Your task to perform on an android device: What's on my calendar tomorrow? Image 0: 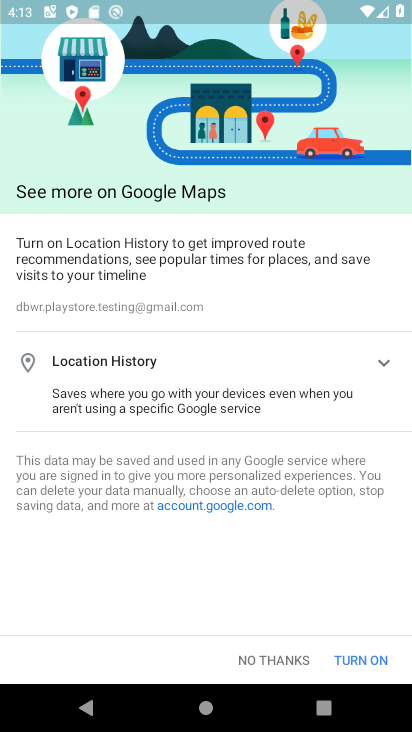
Step 0: press back button
Your task to perform on an android device: What's on my calendar tomorrow? Image 1: 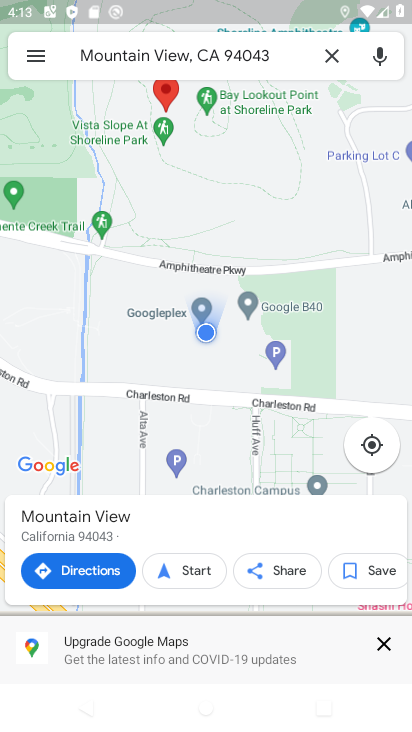
Step 1: press home button
Your task to perform on an android device: What's on my calendar tomorrow? Image 2: 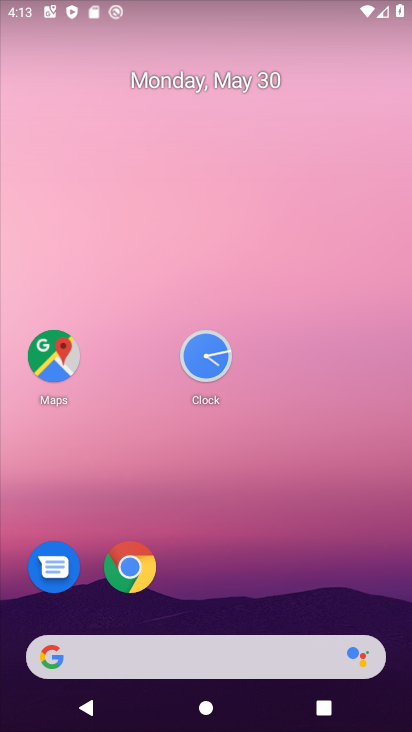
Step 2: drag from (283, 619) to (161, 58)
Your task to perform on an android device: What's on my calendar tomorrow? Image 3: 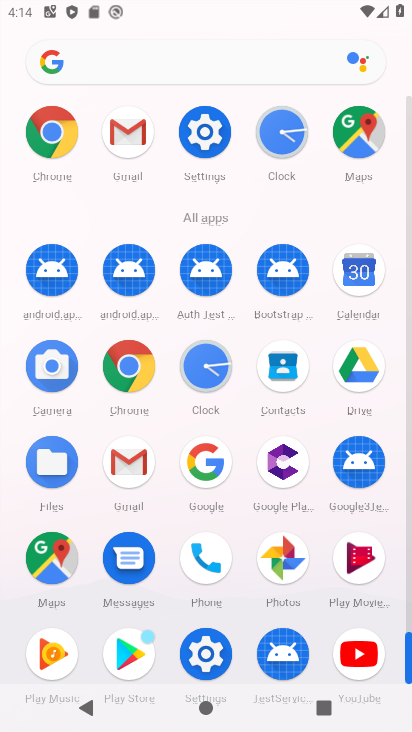
Step 3: click (358, 279)
Your task to perform on an android device: What's on my calendar tomorrow? Image 4: 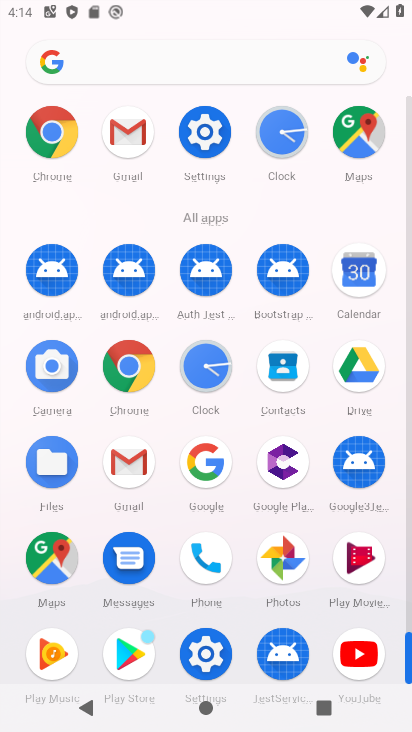
Step 4: click (357, 280)
Your task to perform on an android device: What's on my calendar tomorrow? Image 5: 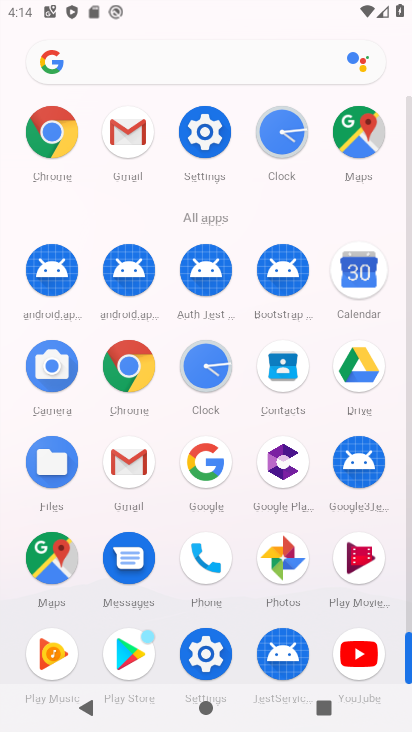
Step 5: click (357, 280)
Your task to perform on an android device: What's on my calendar tomorrow? Image 6: 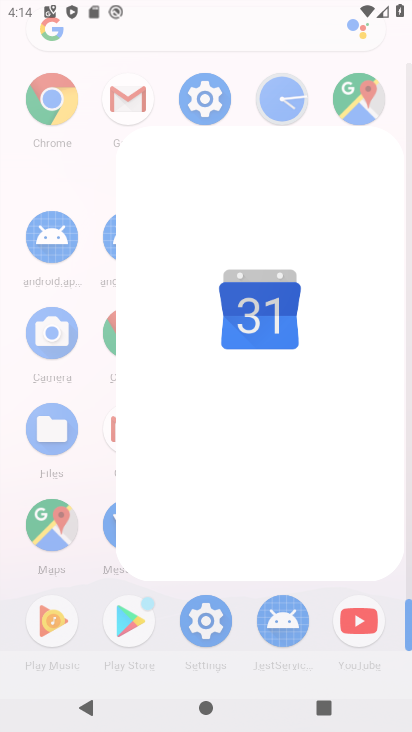
Step 6: click (358, 280)
Your task to perform on an android device: What's on my calendar tomorrow? Image 7: 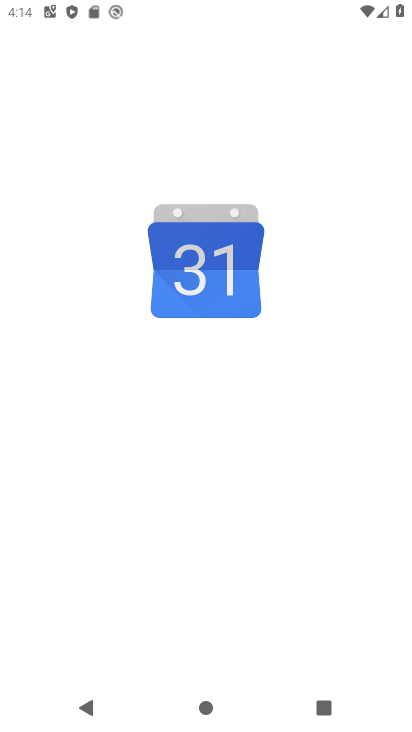
Step 7: click (361, 281)
Your task to perform on an android device: What's on my calendar tomorrow? Image 8: 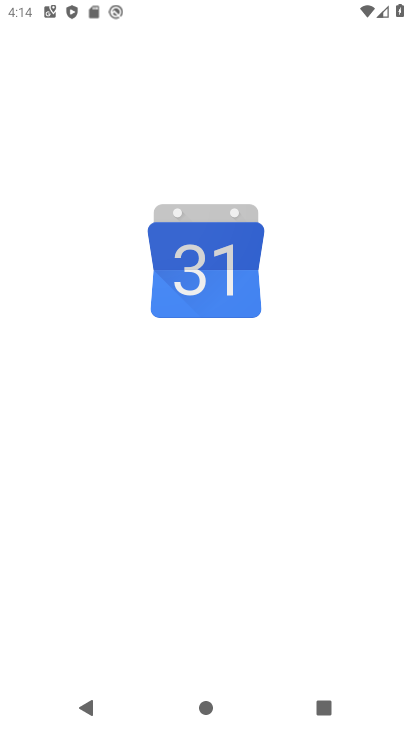
Step 8: click (361, 281)
Your task to perform on an android device: What's on my calendar tomorrow? Image 9: 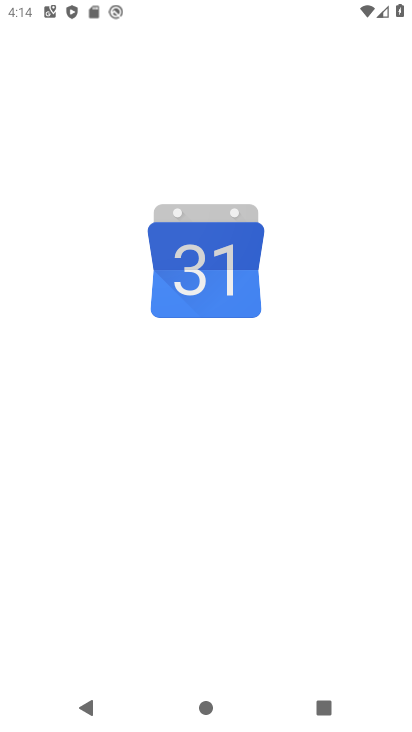
Step 9: click (361, 281)
Your task to perform on an android device: What's on my calendar tomorrow? Image 10: 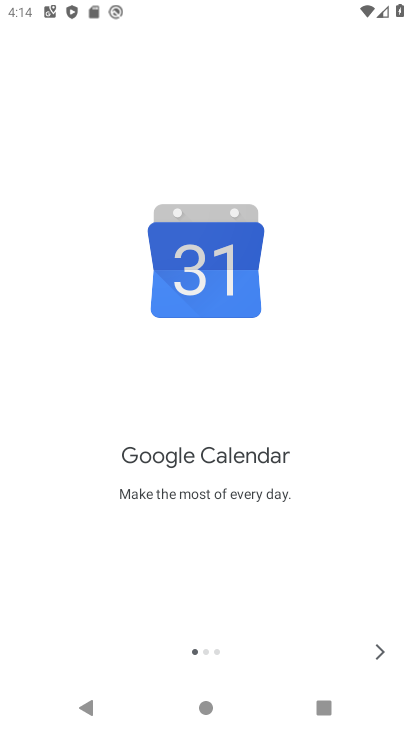
Step 10: click (383, 649)
Your task to perform on an android device: What's on my calendar tomorrow? Image 11: 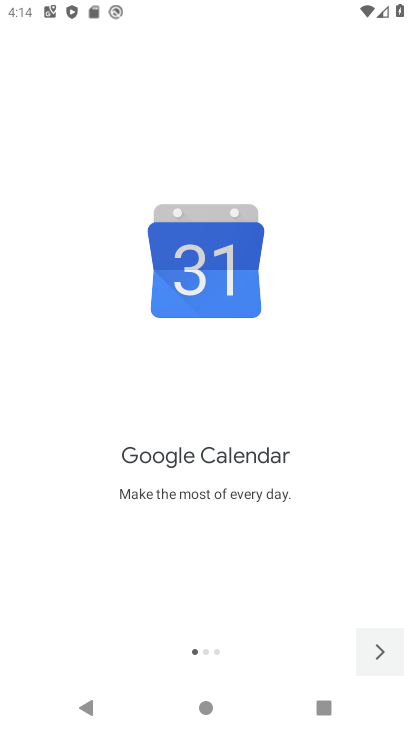
Step 11: click (385, 654)
Your task to perform on an android device: What's on my calendar tomorrow? Image 12: 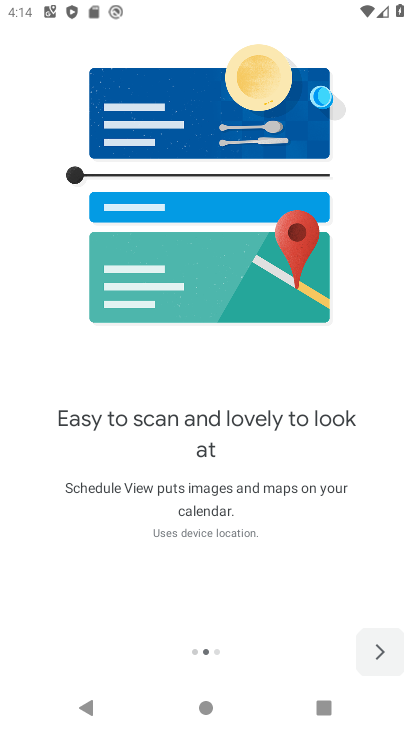
Step 12: click (397, 646)
Your task to perform on an android device: What's on my calendar tomorrow? Image 13: 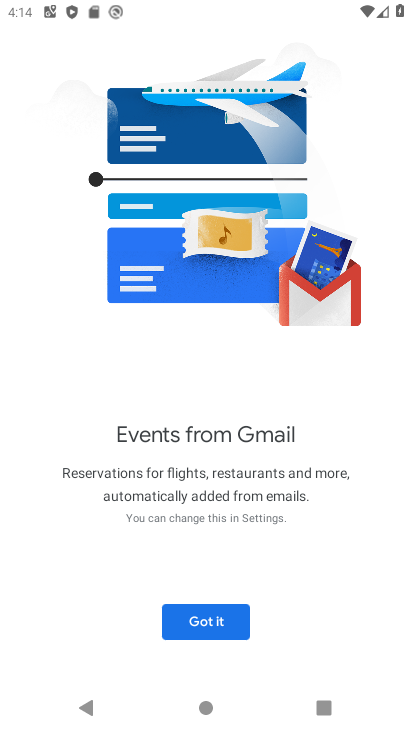
Step 13: click (381, 654)
Your task to perform on an android device: What's on my calendar tomorrow? Image 14: 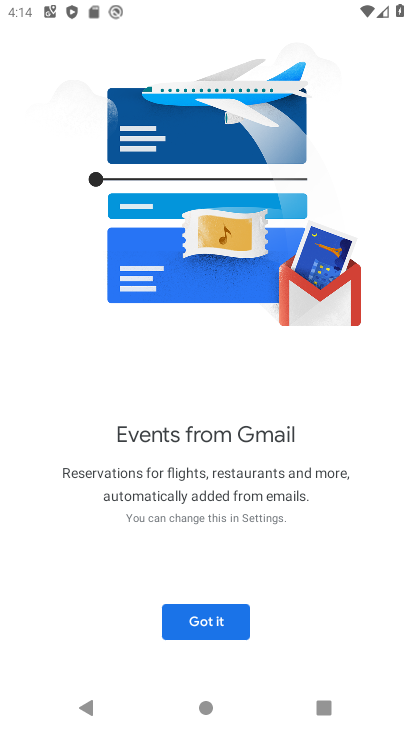
Step 14: click (376, 657)
Your task to perform on an android device: What's on my calendar tomorrow? Image 15: 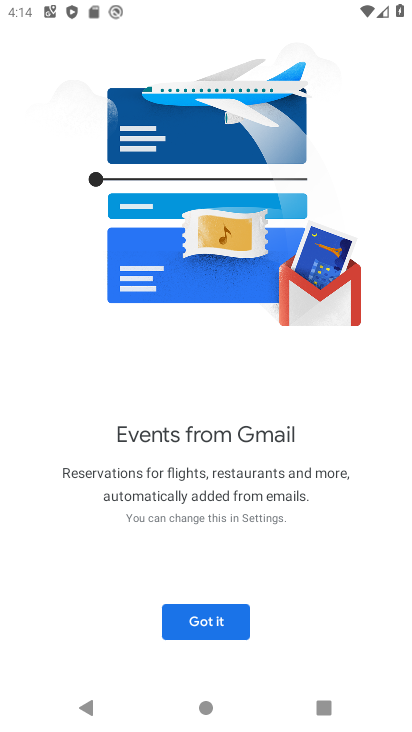
Step 15: click (207, 625)
Your task to perform on an android device: What's on my calendar tomorrow? Image 16: 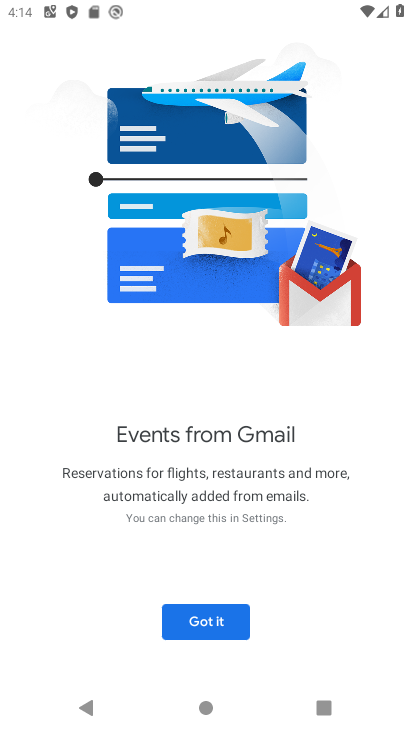
Step 16: click (209, 622)
Your task to perform on an android device: What's on my calendar tomorrow? Image 17: 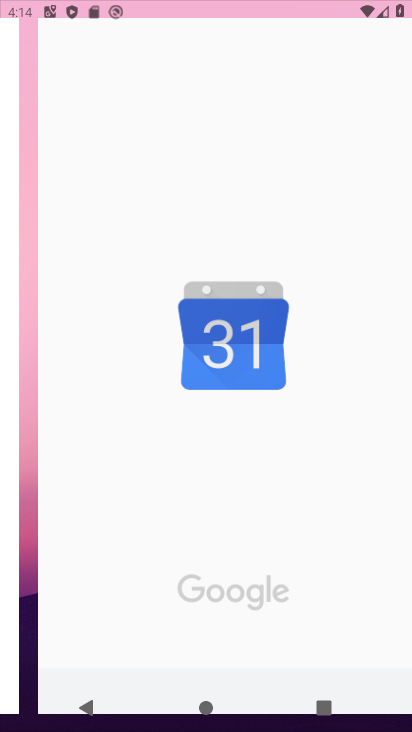
Step 17: click (216, 622)
Your task to perform on an android device: What's on my calendar tomorrow? Image 18: 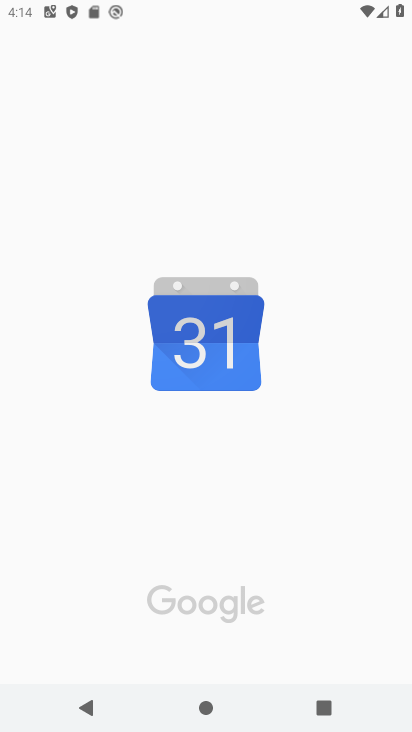
Step 18: click (222, 620)
Your task to perform on an android device: What's on my calendar tomorrow? Image 19: 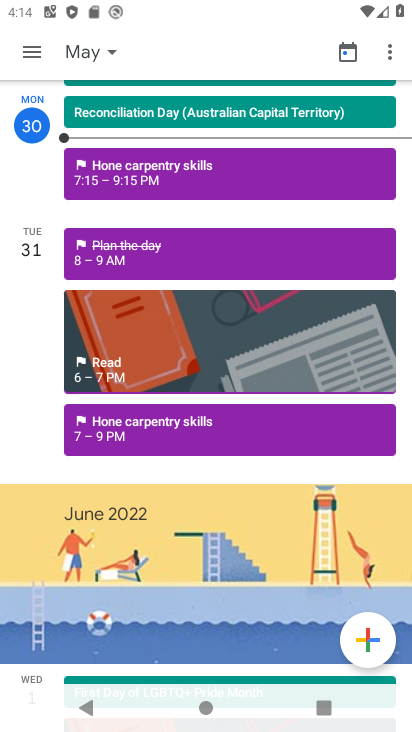
Step 19: click (113, 57)
Your task to perform on an android device: What's on my calendar tomorrow? Image 20: 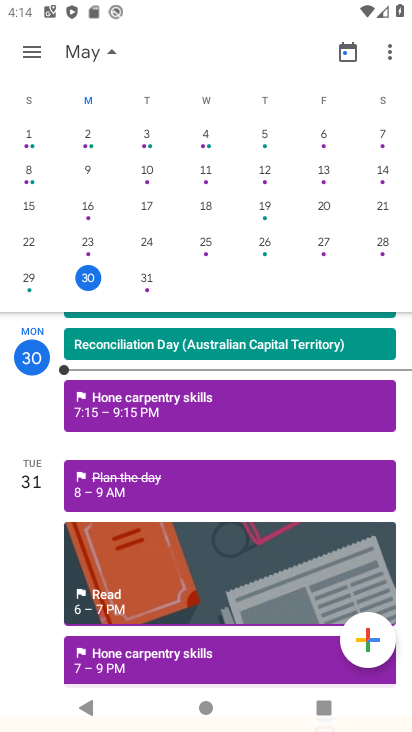
Step 20: click (148, 270)
Your task to perform on an android device: What's on my calendar tomorrow? Image 21: 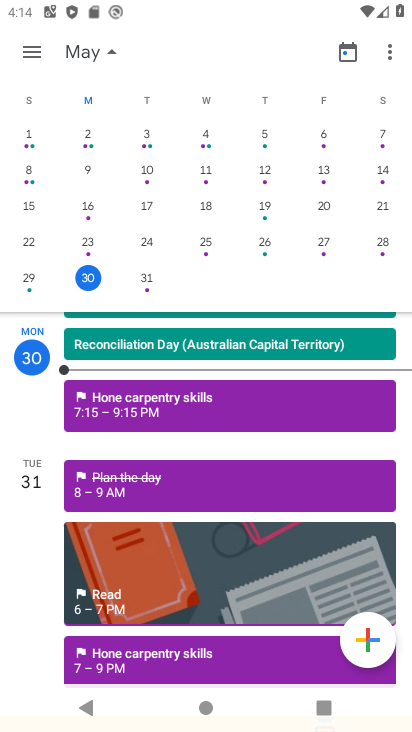
Step 21: click (142, 274)
Your task to perform on an android device: What's on my calendar tomorrow? Image 22: 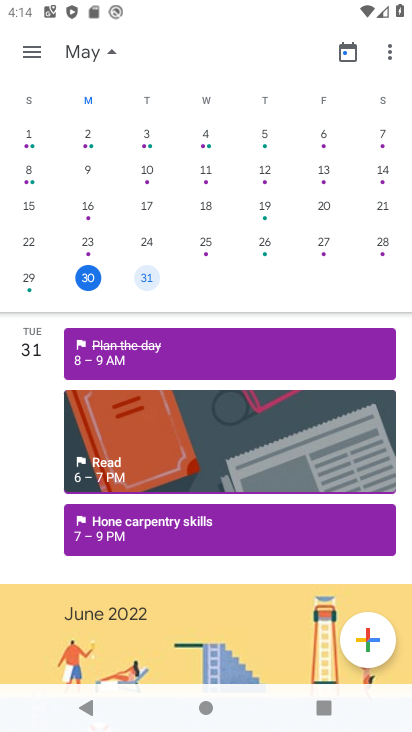
Step 22: click (138, 286)
Your task to perform on an android device: What's on my calendar tomorrow? Image 23: 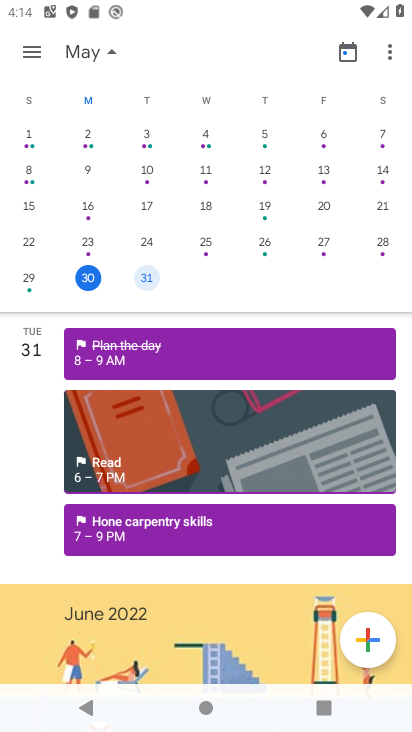
Step 23: click (138, 286)
Your task to perform on an android device: What's on my calendar tomorrow? Image 24: 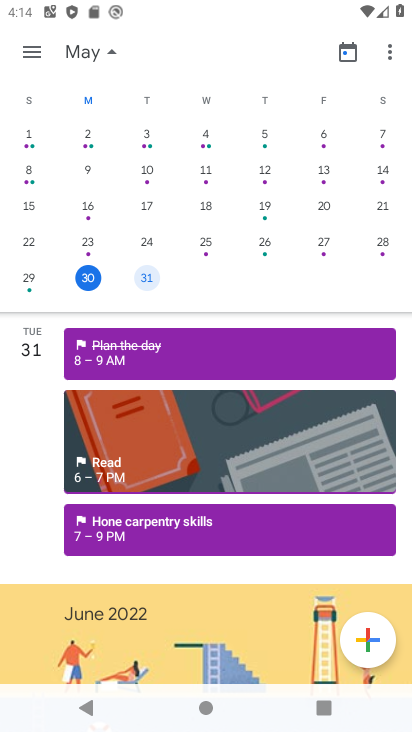
Step 24: click (145, 269)
Your task to perform on an android device: What's on my calendar tomorrow? Image 25: 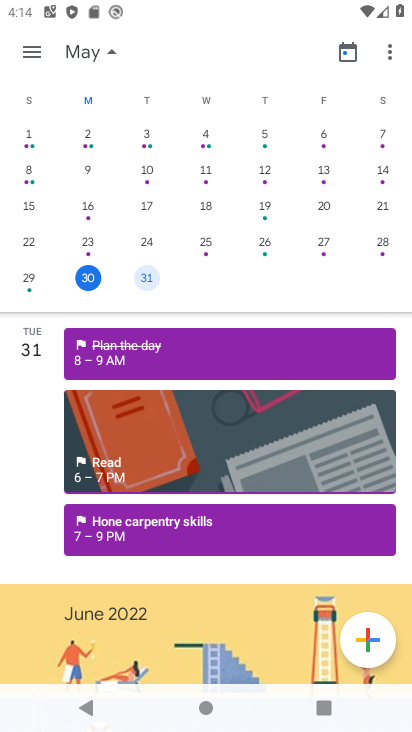
Step 25: click (145, 269)
Your task to perform on an android device: What's on my calendar tomorrow? Image 26: 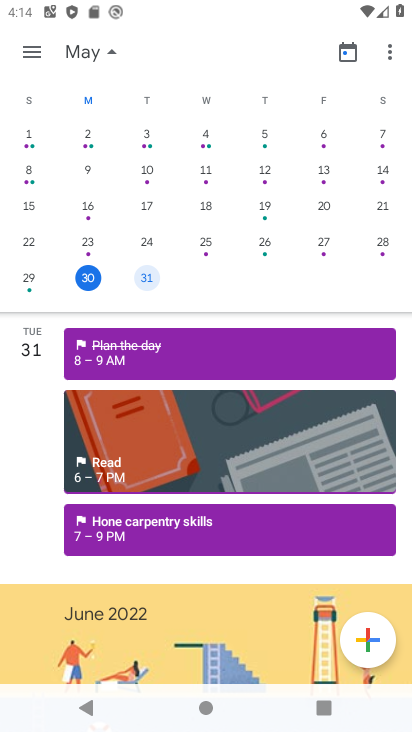
Step 26: task complete